Your task to perform on an android device: Show me recent news Image 0: 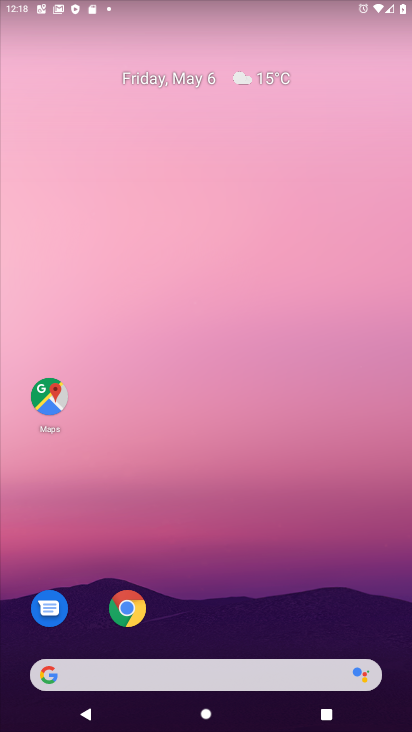
Step 0: click (135, 615)
Your task to perform on an android device: Show me recent news Image 1: 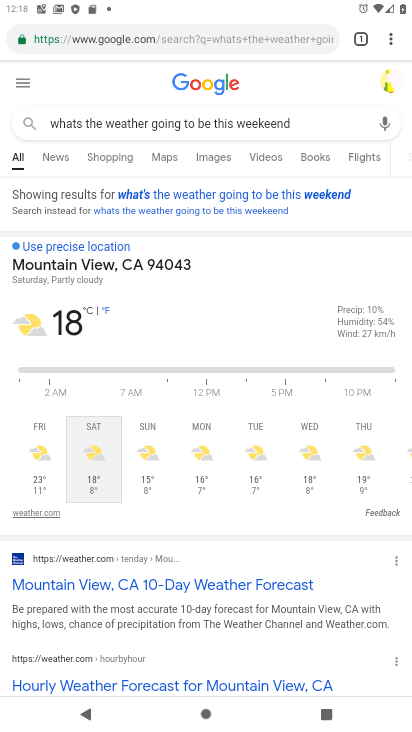
Step 1: click (154, 44)
Your task to perform on an android device: Show me recent news Image 2: 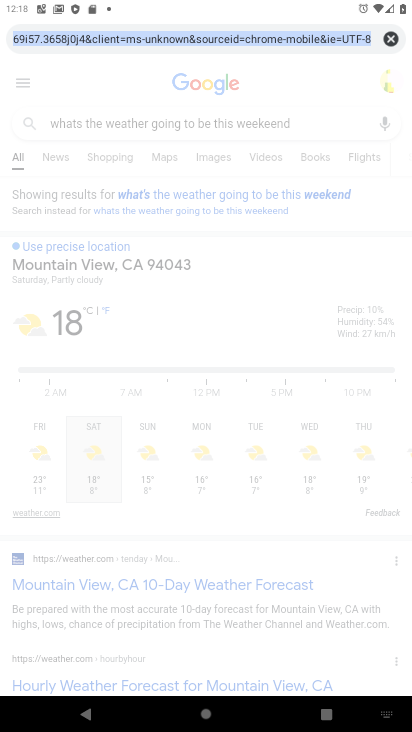
Step 2: type "recent news"
Your task to perform on an android device: Show me recent news Image 3: 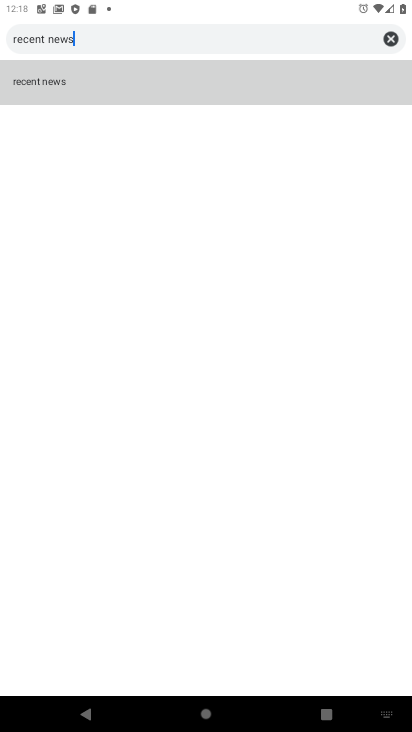
Step 3: click (122, 84)
Your task to perform on an android device: Show me recent news Image 4: 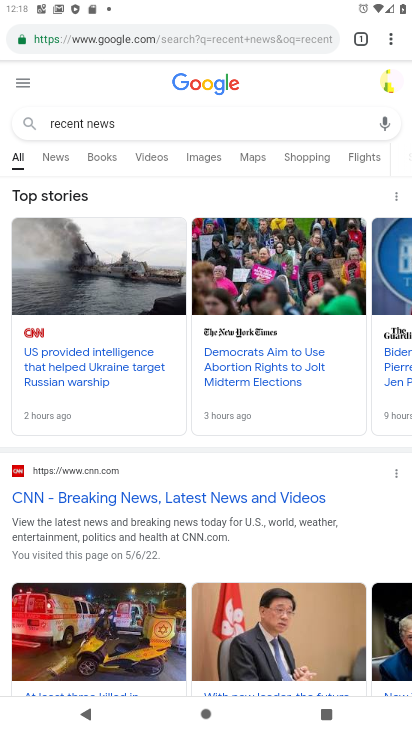
Step 4: task complete